Your task to perform on an android device: Search for Mexican restaurants on Maps Image 0: 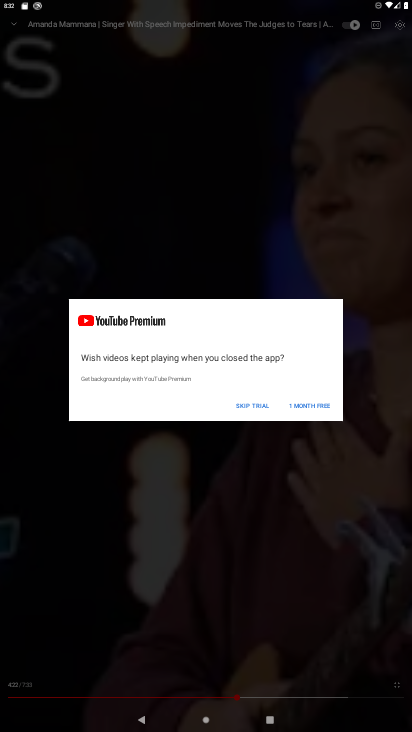
Step 0: press home button
Your task to perform on an android device: Search for Mexican restaurants on Maps Image 1: 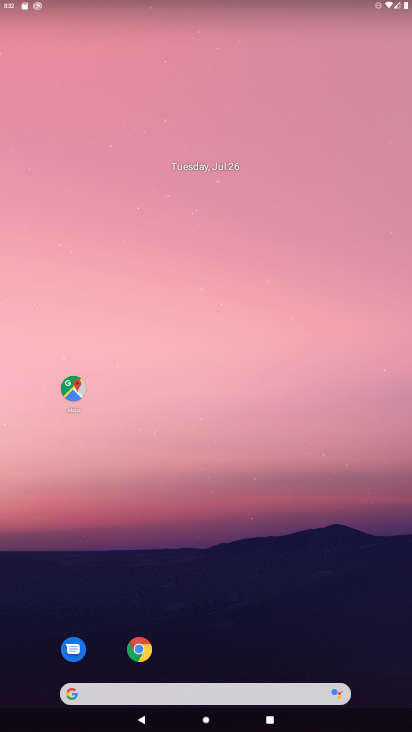
Step 1: click (72, 395)
Your task to perform on an android device: Search for Mexican restaurants on Maps Image 2: 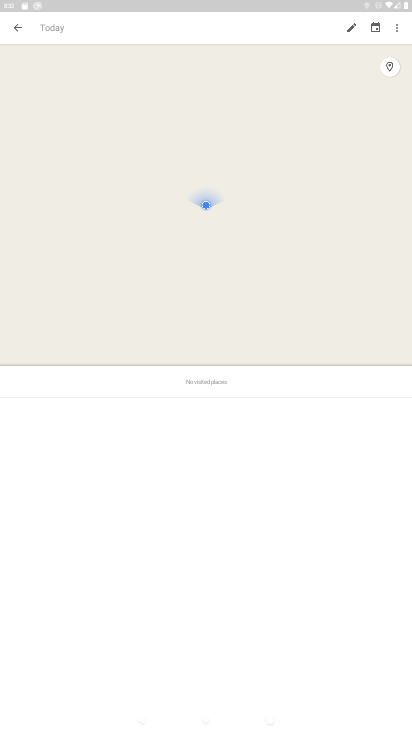
Step 2: click (18, 27)
Your task to perform on an android device: Search for Mexican restaurants on Maps Image 3: 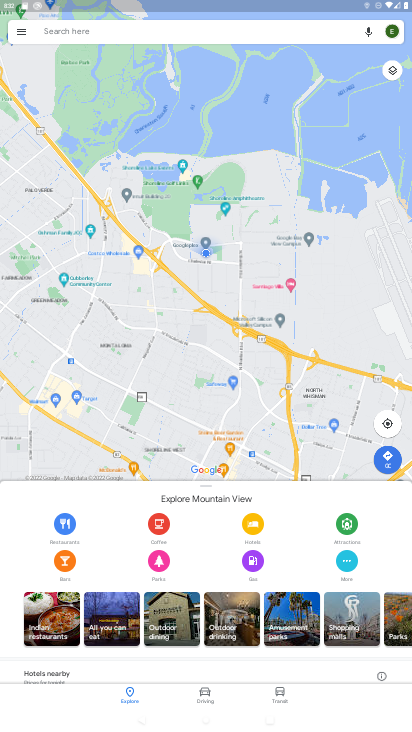
Step 3: click (131, 23)
Your task to perform on an android device: Search for Mexican restaurants on Maps Image 4: 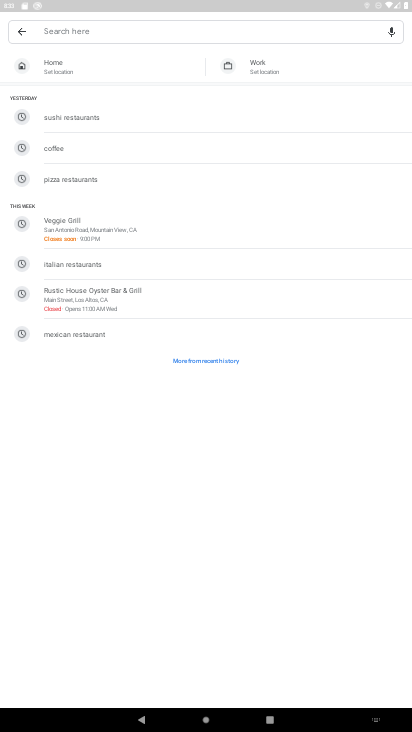
Step 4: type "m"
Your task to perform on an android device: Search for Mexican restaurants on Maps Image 5: 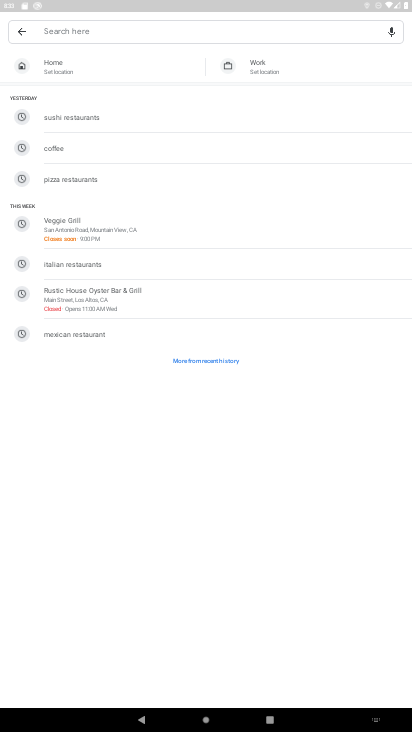
Step 5: click (120, 338)
Your task to perform on an android device: Search for Mexican restaurants on Maps Image 6: 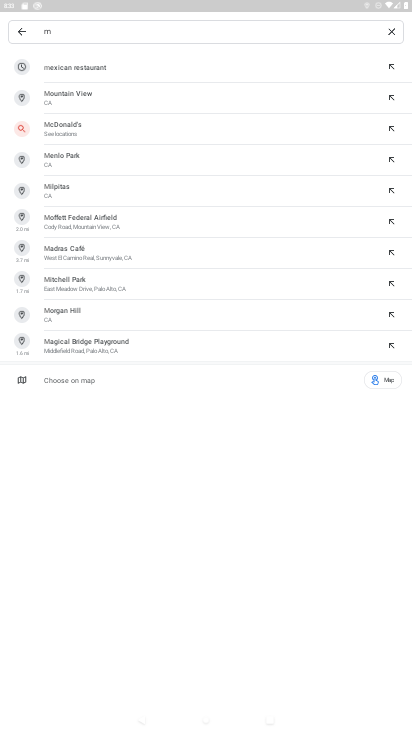
Step 6: click (179, 58)
Your task to perform on an android device: Search for Mexican restaurants on Maps Image 7: 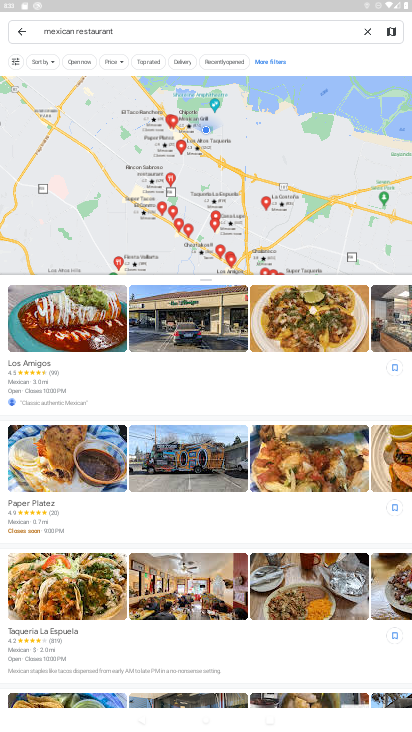
Step 7: task complete